Your task to perform on an android device: Do I have any events today? Image 0: 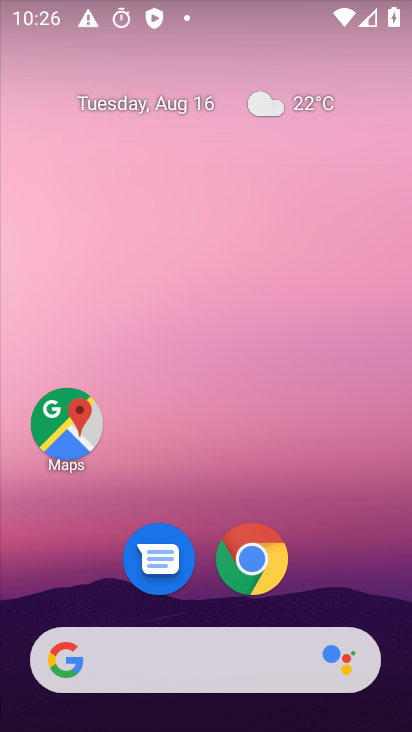
Step 0: drag from (190, 346) to (217, 31)
Your task to perform on an android device: Do I have any events today? Image 1: 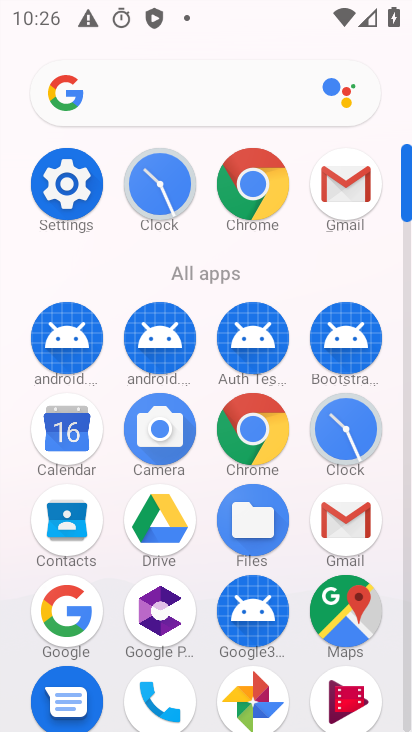
Step 1: drag from (282, 537) to (282, 32)
Your task to perform on an android device: Do I have any events today? Image 2: 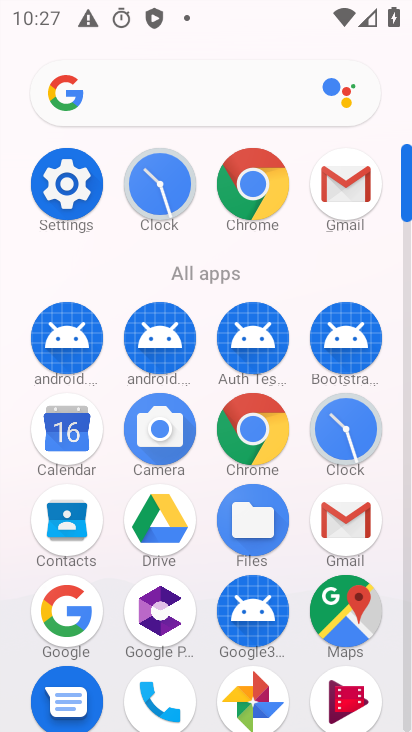
Step 2: click (59, 434)
Your task to perform on an android device: Do I have any events today? Image 3: 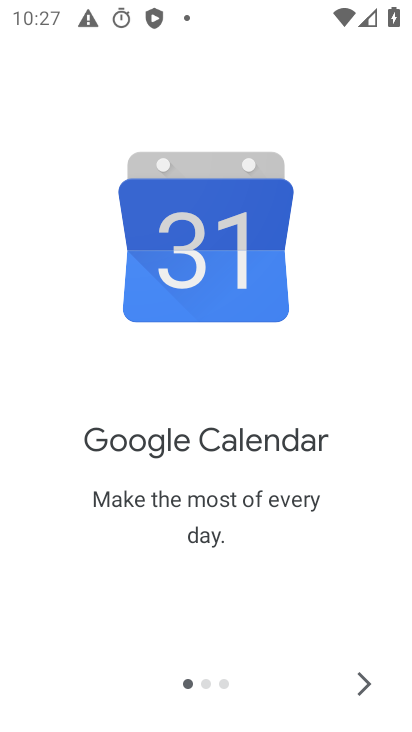
Step 3: click (366, 684)
Your task to perform on an android device: Do I have any events today? Image 4: 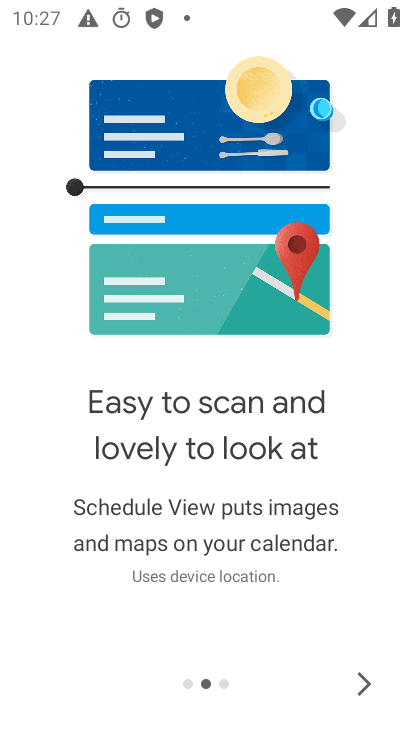
Step 4: click (366, 684)
Your task to perform on an android device: Do I have any events today? Image 5: 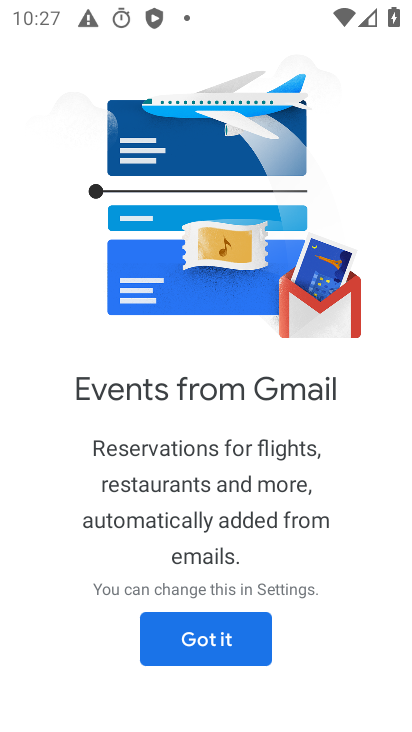
Step 5: click (207, 645)
Your task to perform on an android device: Do I have any events today? Image 6: 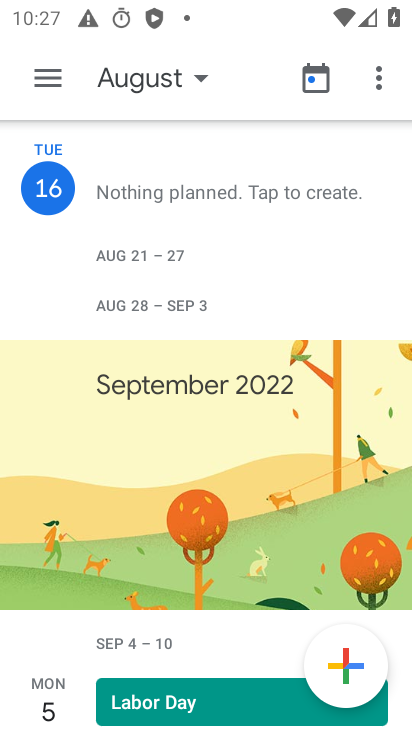
Step 6: click (126, 91)
Your task to perform on an android device: Do I have any events today? Image 7: 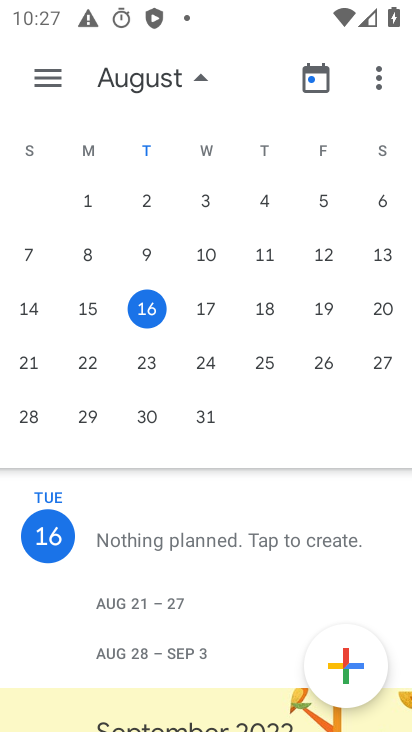
Step 7: click (199, 312)
Your task to perform on an android device: Do I have any events today? Image 8: 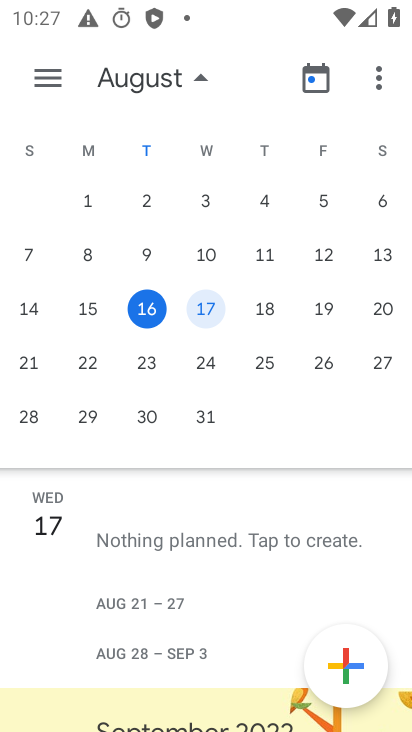
Step 8: click (142, 315)
Your task to perform on an android device: Do I have any events today? Image 9: 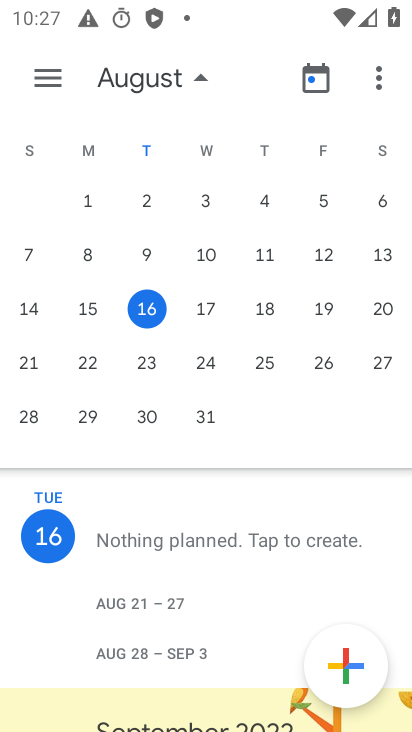
Step 9: task complete